Your task to perform on an android device: Open Google Image 0: 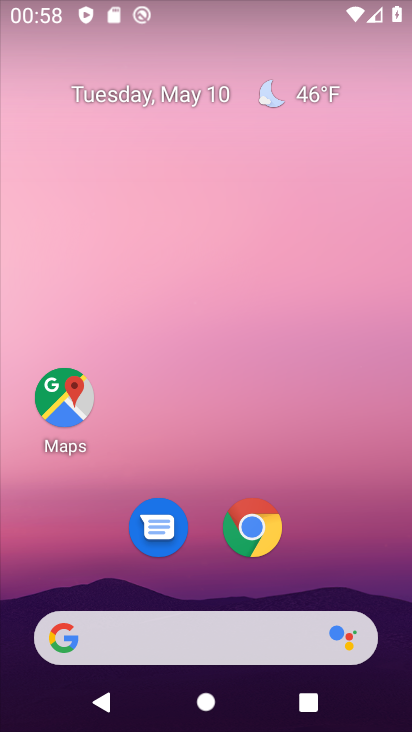
Step 0: drag from (317, 566) to (180, 206)
Your task to perform on an android device: Open Google Image 1: 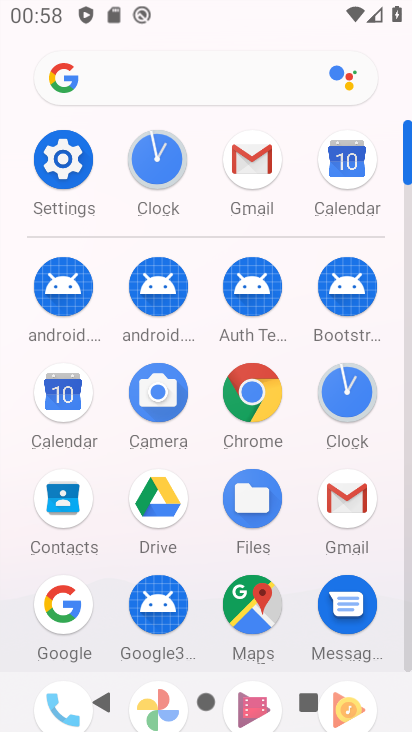
Step 1: click (67, 610)
Your task to perform on an android device: Open Google Image 2: 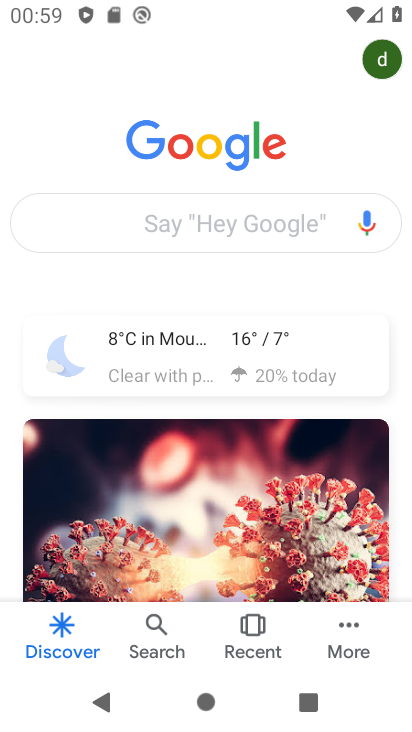
Step 2: task complete